Your task to perform on an android device: find which apps use the phone's location Image 0: 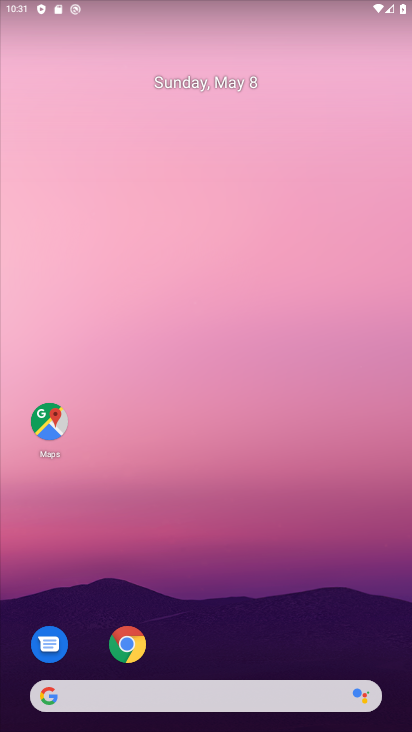
Step 0: drag from (221, 643) to (238, 68)
Your task to perform on an android device: find which apps use the phone's location Image 1: 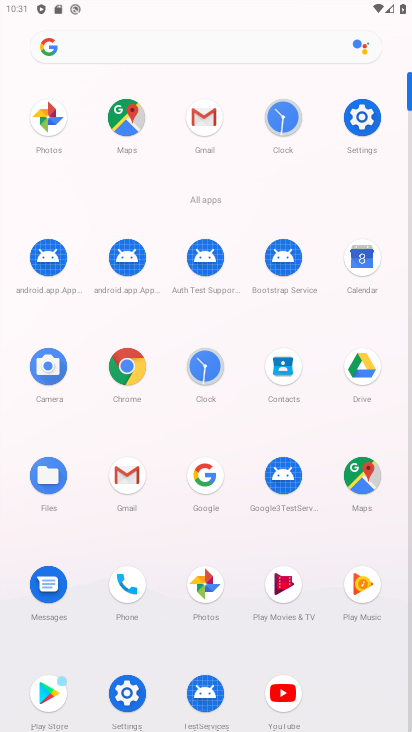
Step 1: click (116, 691)
Your task to perform on an android device: find which apps use the phone's location Image 2: 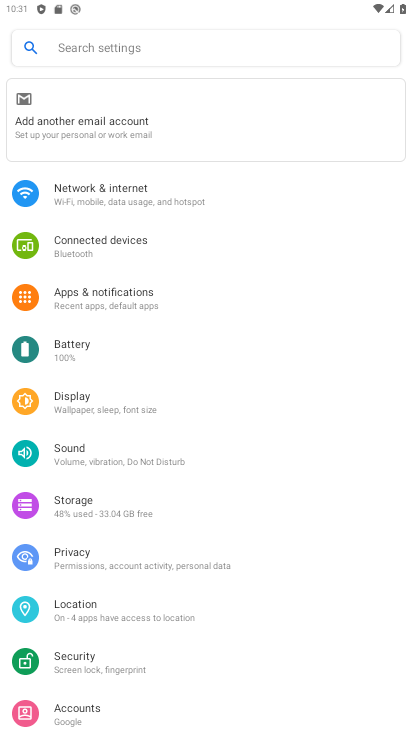
Step 2: click (115, 599)
Your task to perform on an android device: find which apps use the phone's location Image 3: 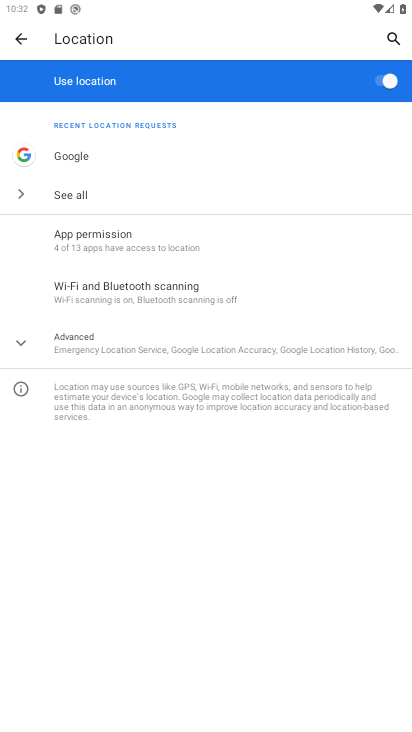
Step 3: click (113, 241)
Your task to perform on an android device: find which apps use the phone's location Image 4: 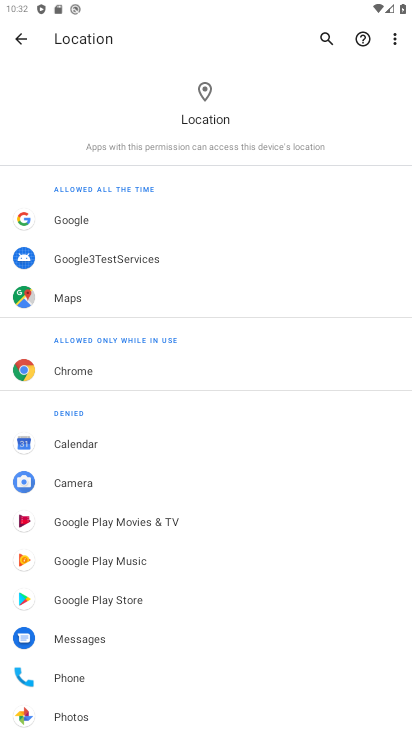
Step 4: task complete